Your task to perform on an android device: Open Maps and search for coffee Image 0: 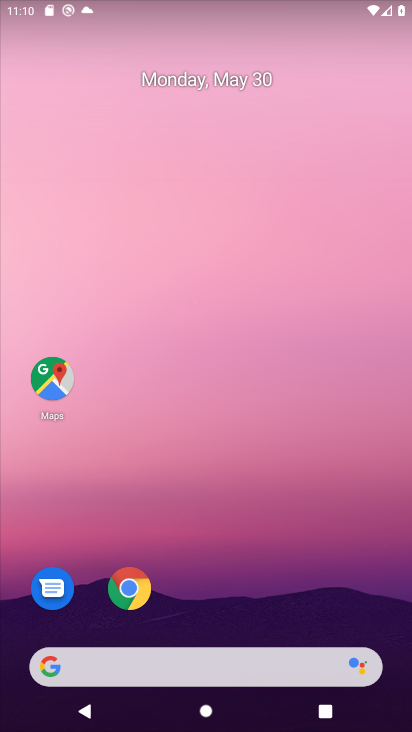
Step 0: drag from (203, 651) to (305, 79)
Your task to perform on an android device: Open Maps and search for coffee Image 1: 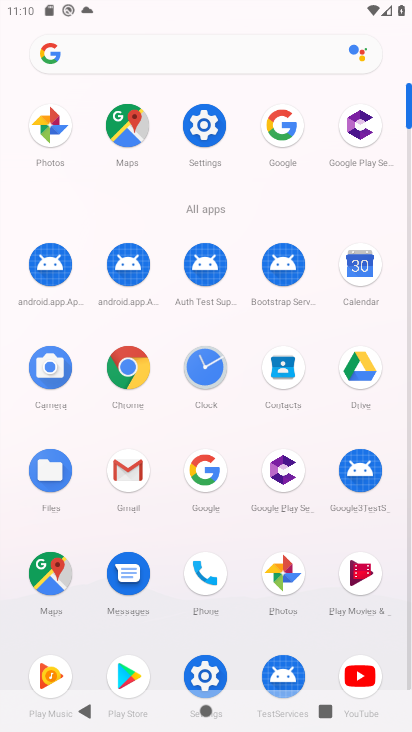
Step 1: click (42, 567)
Your task to perform on an android device: Open Maps and search for coffee Image 2: 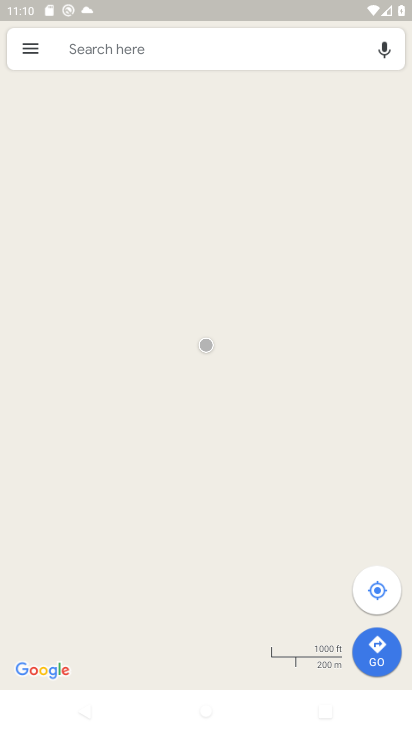
Step 2: click (240, 45)
Your task to perform on an android device: Open Maps and search for coffee Image 3: 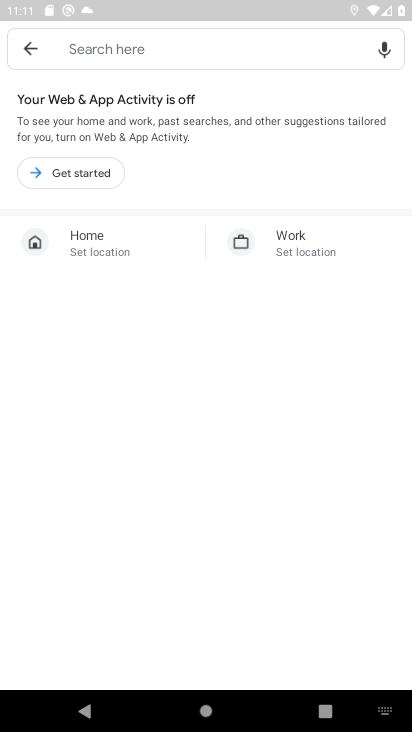
Step 3: type "coffee"
Your task to perform on an android device: Open Maps and search for coffee Image 4: 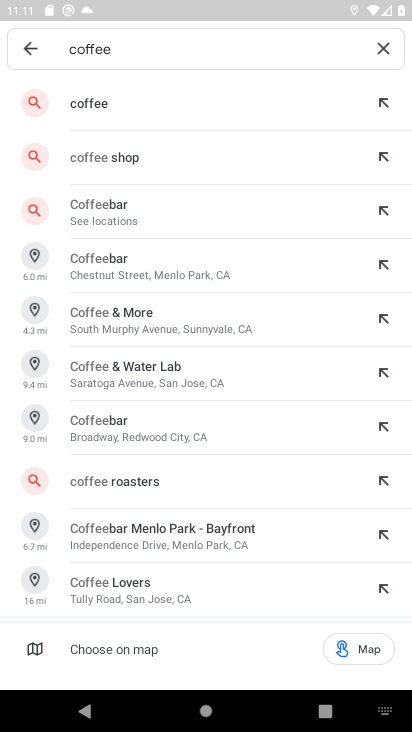
Step 4: click (316, 93)
Your task to perform on an android device: Open Maps and search for coffee Image 5: 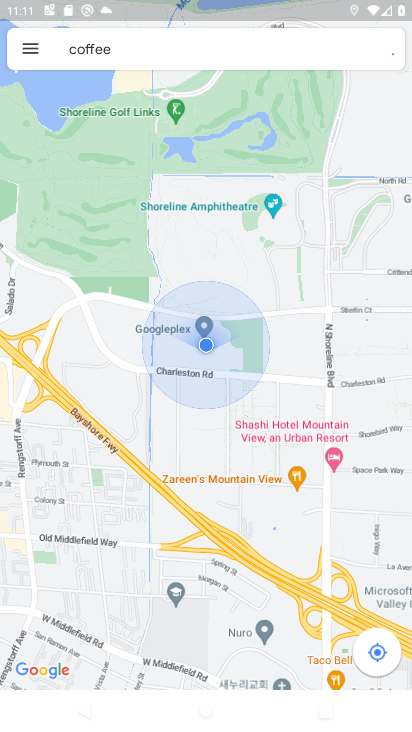
Step 5: task complete